Your task to perform on an android device: toggle translation in the chrome app Image 0: 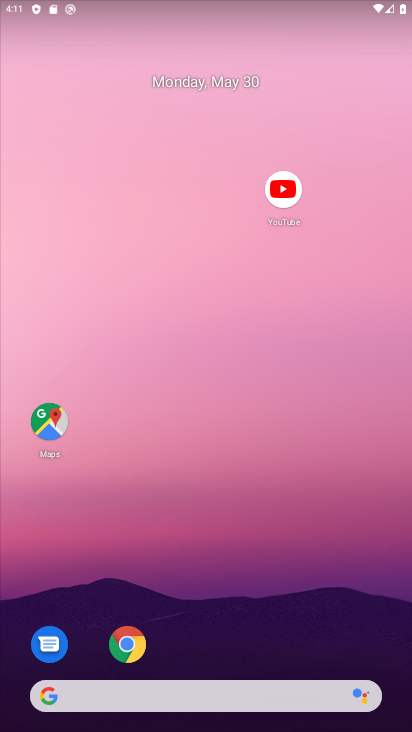
Step 0: click (123, 649)
Your task to perform on an android device: toggle translation in the chrome app Image 1: 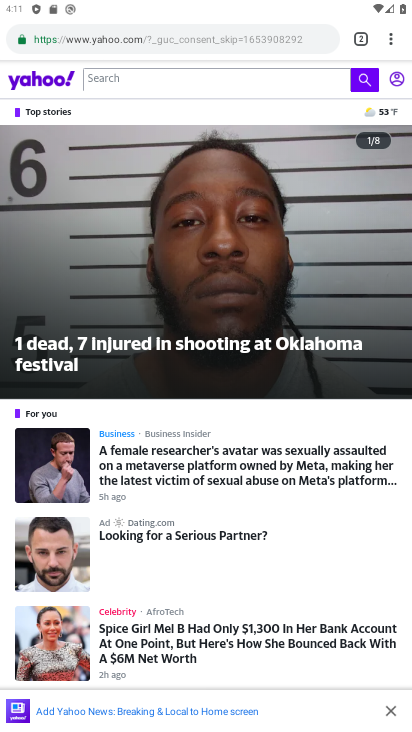
Step 1: click (385, 38)
Your task to perform on an android device: toggle translation in the chrome app Image 2: 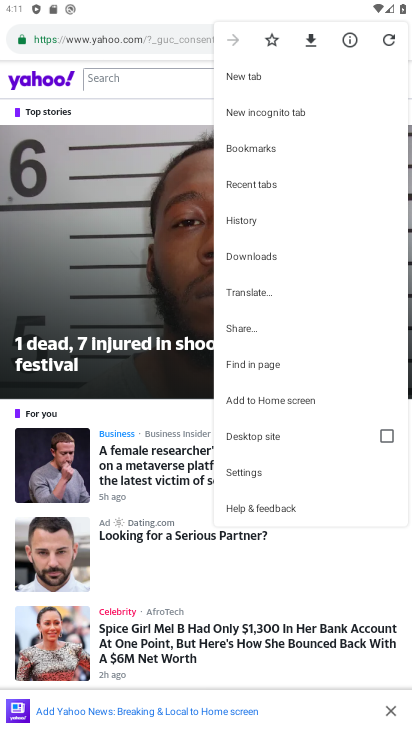
Step 2: click (253, 463)
Your task to perform on an android device: toggle translation in the chrome app Image 3: 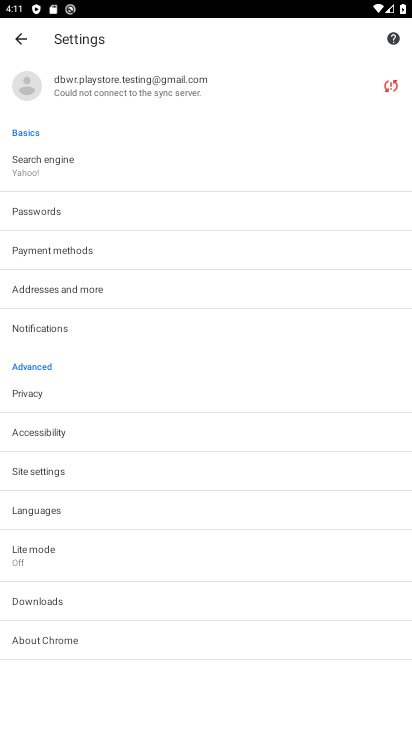
Step 3: click (100, 516)
Your task to perform on an android device: toggle translation in the chrome app Image 4: 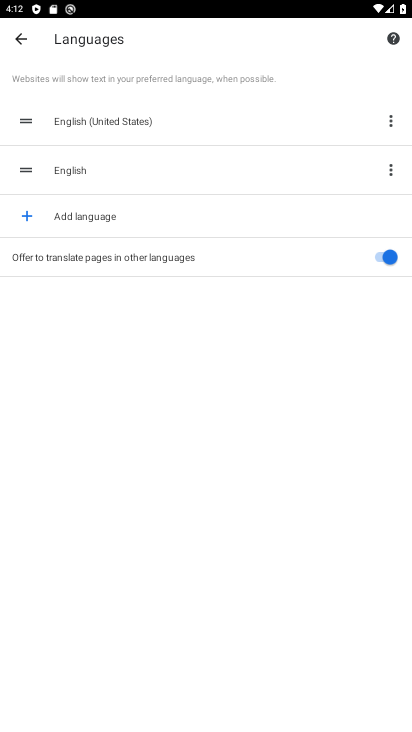
Step 4: click (386, 252)
Your task to perform on an android device: toggle translation in the chrome app Image 5: 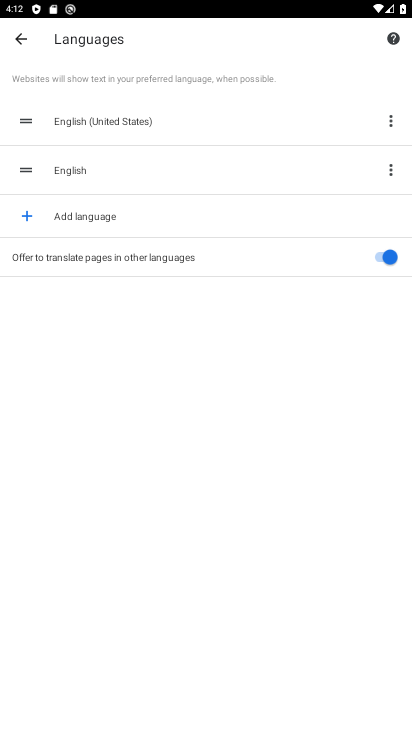
Step 5: click (386, 252)
Your task to perform on an android device: toggle translation in the chrome app Image 6: 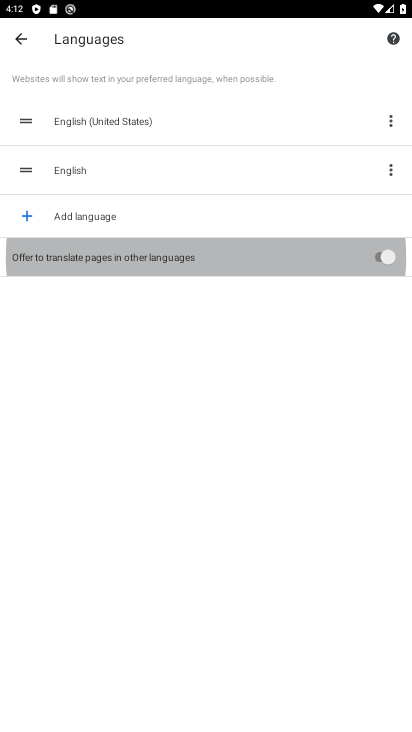
Step 6: click (386, 252)
Your task to perform on an android device: toggle translation in the chrome app Image 7: 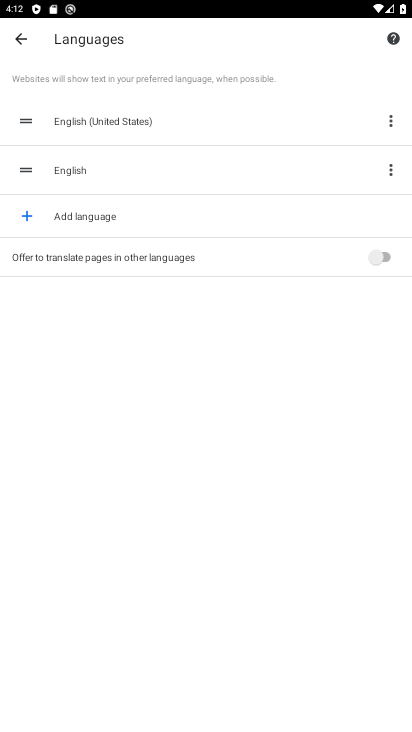
Step 7: click (386, 252)
Your task to perform on an android device: toggle translation in the chrome app Image 8: 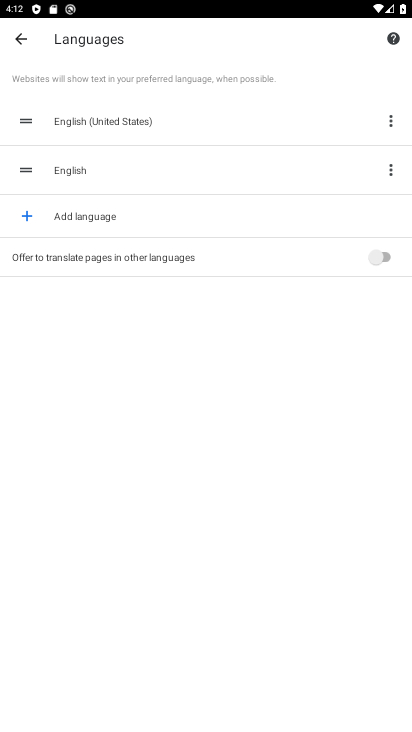
Step 8: click (386, 252)
Your task to perform on an android device: toggle translation in the chrome app Image 9: 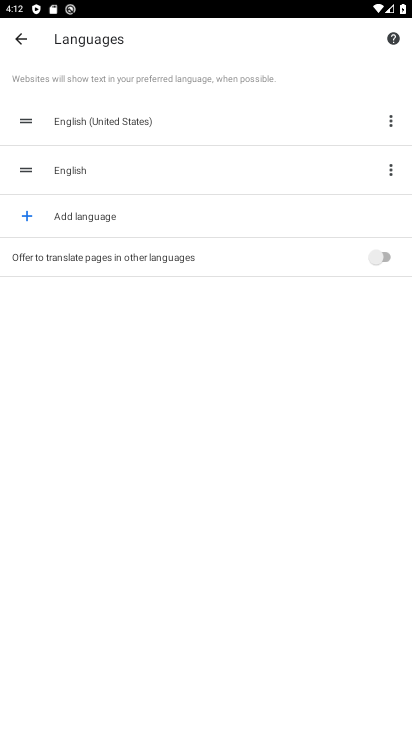
Step 9: task complete